Your task to perform on an android device: Open Android settings Image 0: 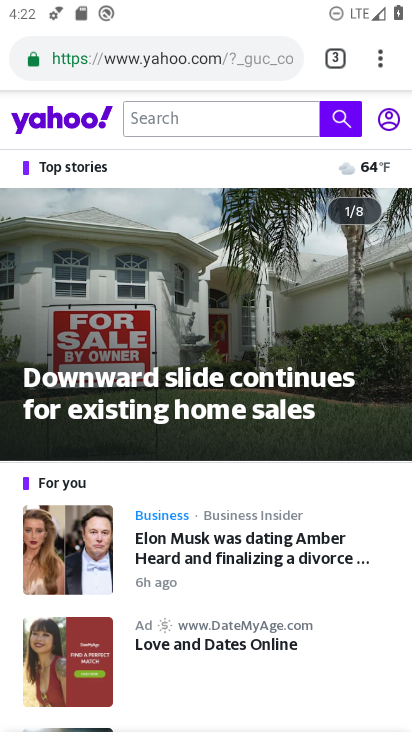
Step 0: press back button
Your task to perform on an android device: Open Android settings Image 1: 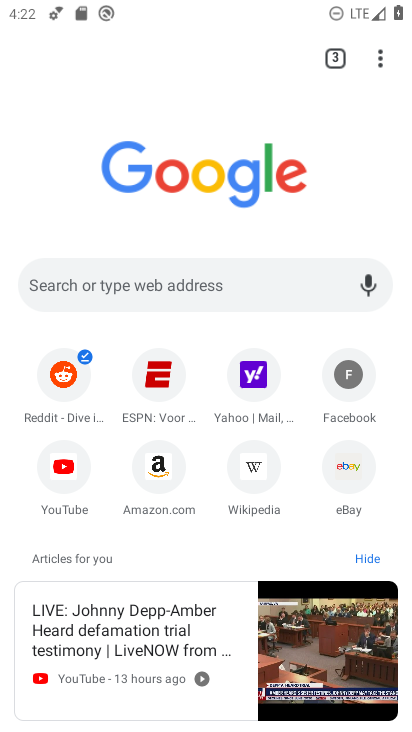
Step 1: press back button
Your task to perform on an android device: Open Android settings Image 2: 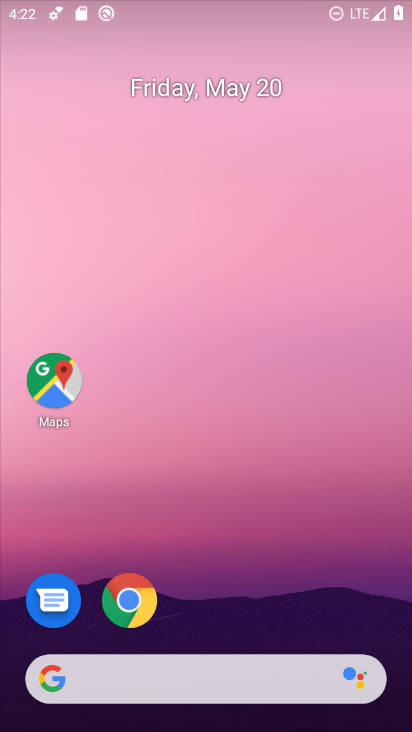
Step 2: drag from (183, 599) to (228, 3)
Your task to perform on an android device: Open Android settings Image 3: 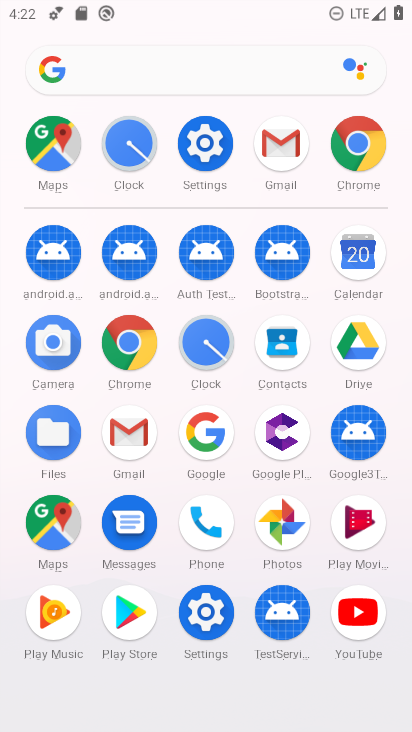
Step 3: click (216, 148)
Your task to perform on an android device: Open Android settings Image 4: 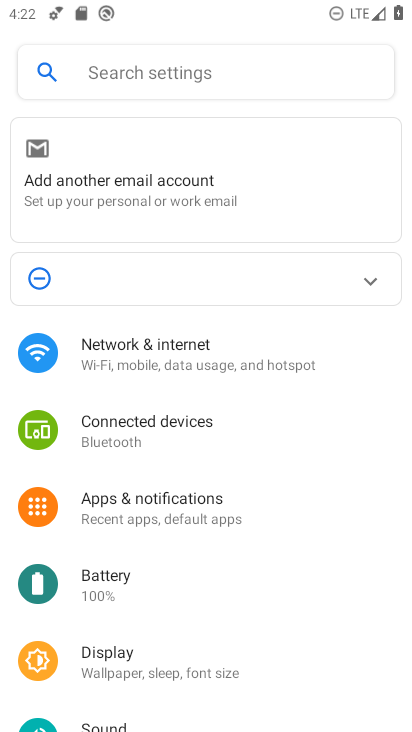
Step 4: drag from (126, 670) to (187, 73)
Your task to perform on an android device: Open Android settings Image 5: 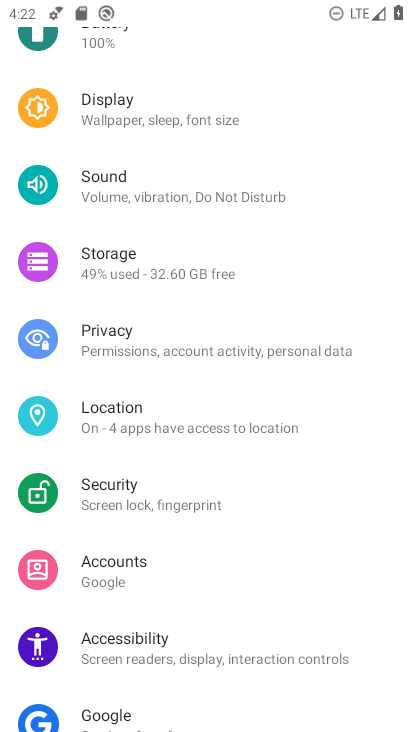
Step 5: drag from (161, 616) to (215, 5)
Your task to perform on an android device: Open Android settings Image 6: 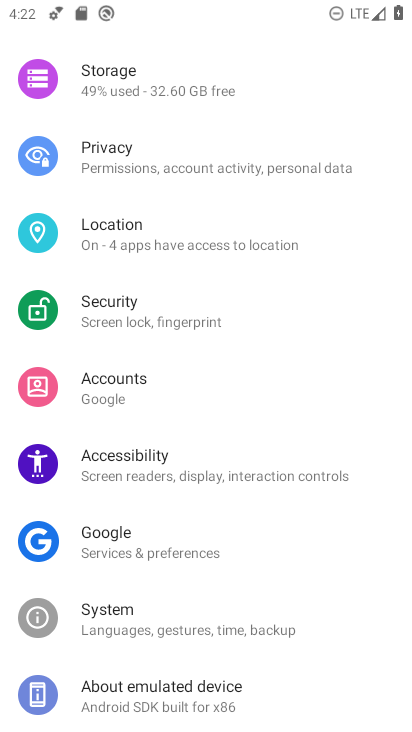
Step 6: click (127, 689)
Your task to perform on an android device: Open Android settings Image 7: 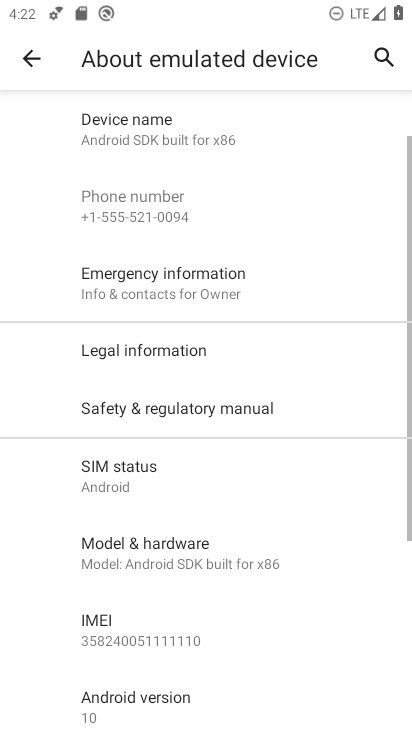
Step 7: click (130, 702)
Your task to perform on an android device: Open Android settings Image 8: 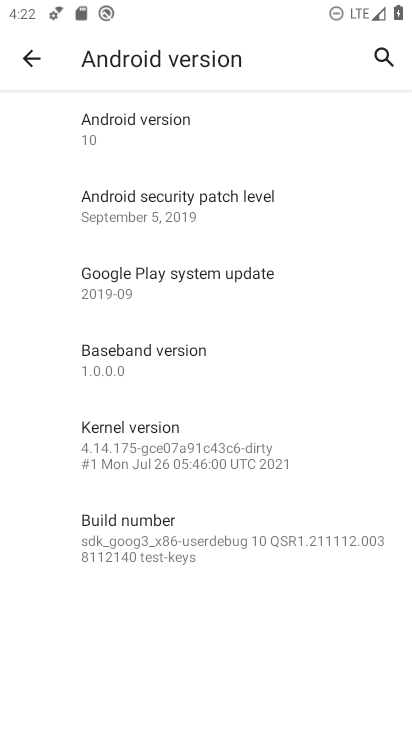
Step 8: task complete